Your task to perform on an android device: Open sound settings Image 0: 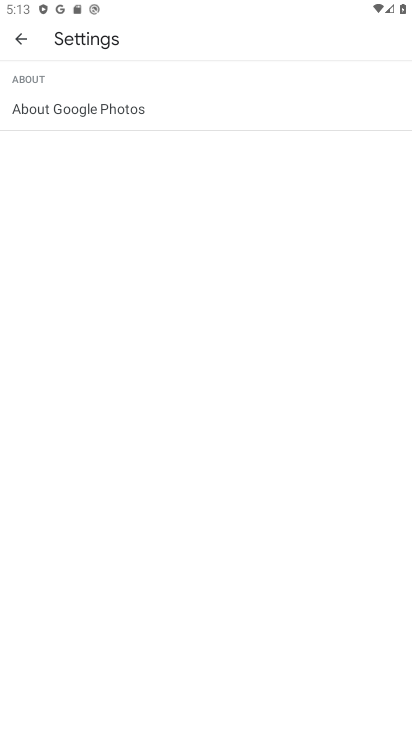
Step 0: press home button
Your task to perform on an android device: Open sound settings Image 1: 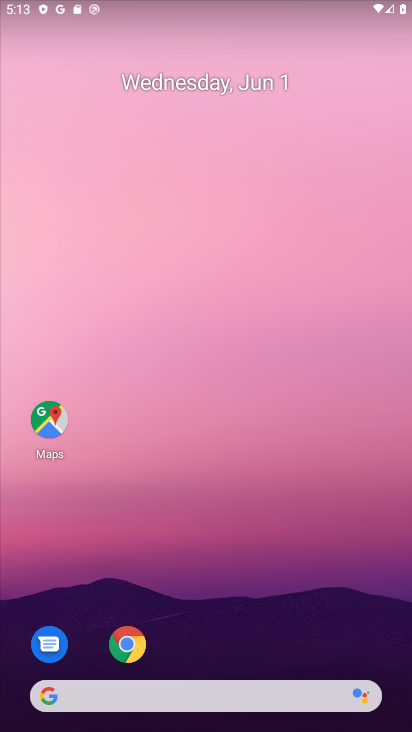
Step 1: drag from (287, 428) to (245, 168)
Your task to perform on an android device: Open sound settings Image 2: 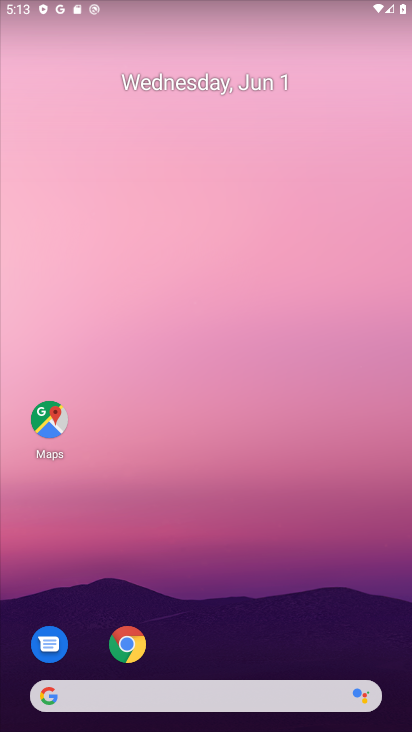
Step 2: drag from (302, 551) to (214, 93)
Your task to perform on an android device: Open sound settings Image 3: 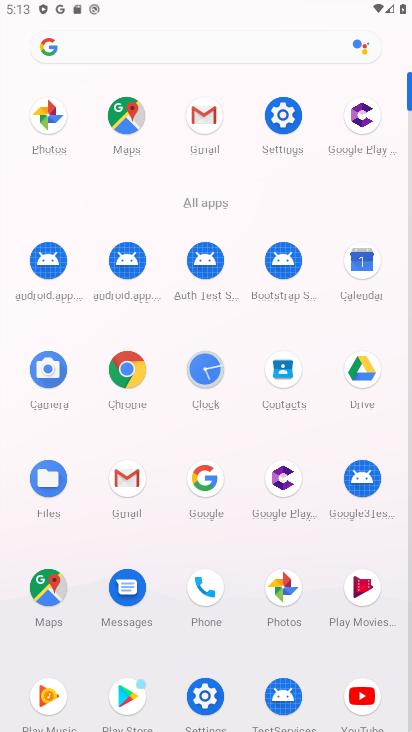
Step 3: click (260, 127)
Your task to perform on an android device: Open sound settings Image 4: 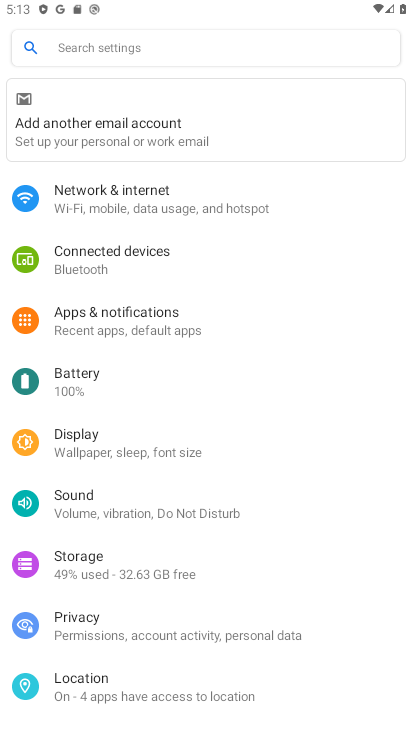
Step 4: click (126, 501)
Your task to perform on an android device: Open sound settings Image 5: 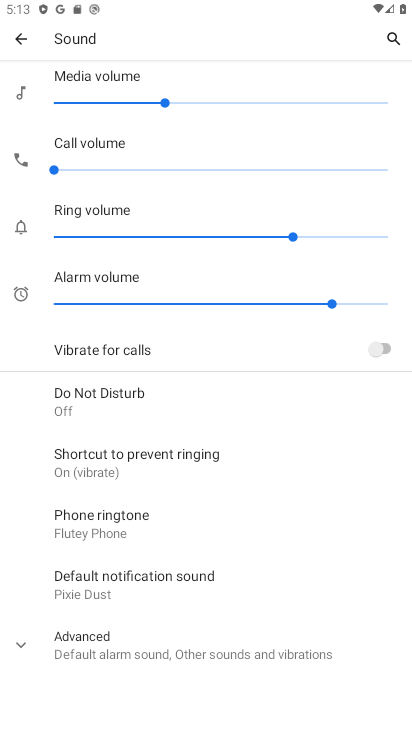
Step 5: task complete